Your task to perform on an android device: Go to Google Image 0: 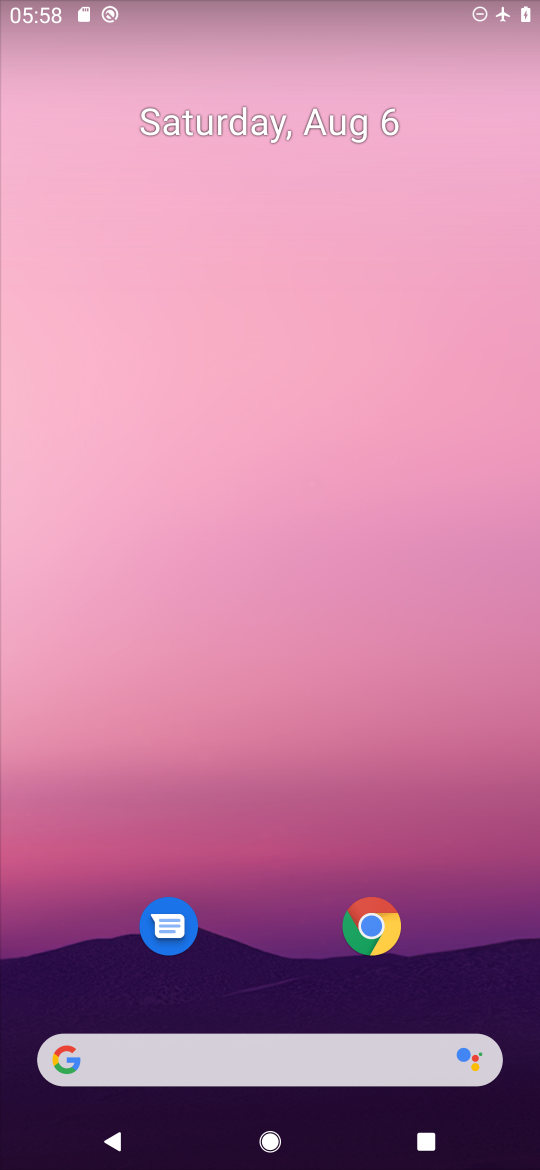
Step 0: drag from (266, 908) to (244, 187)
Your task to perform on an android device: Go to Google Image 1: 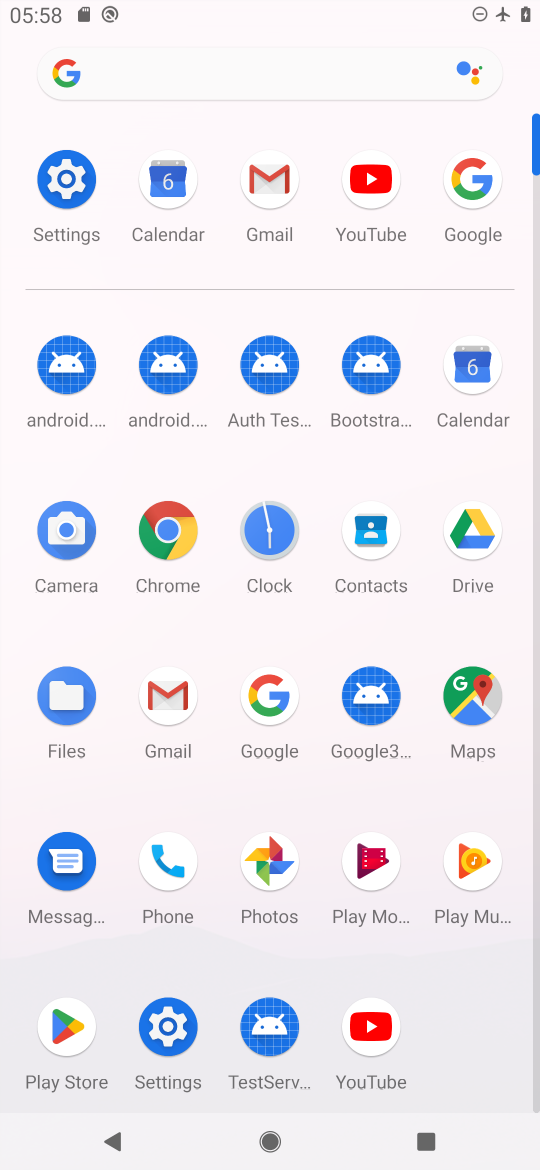
Step 1: click (262, 694)
Your task to perform on an android device: Go to Google Image 2: 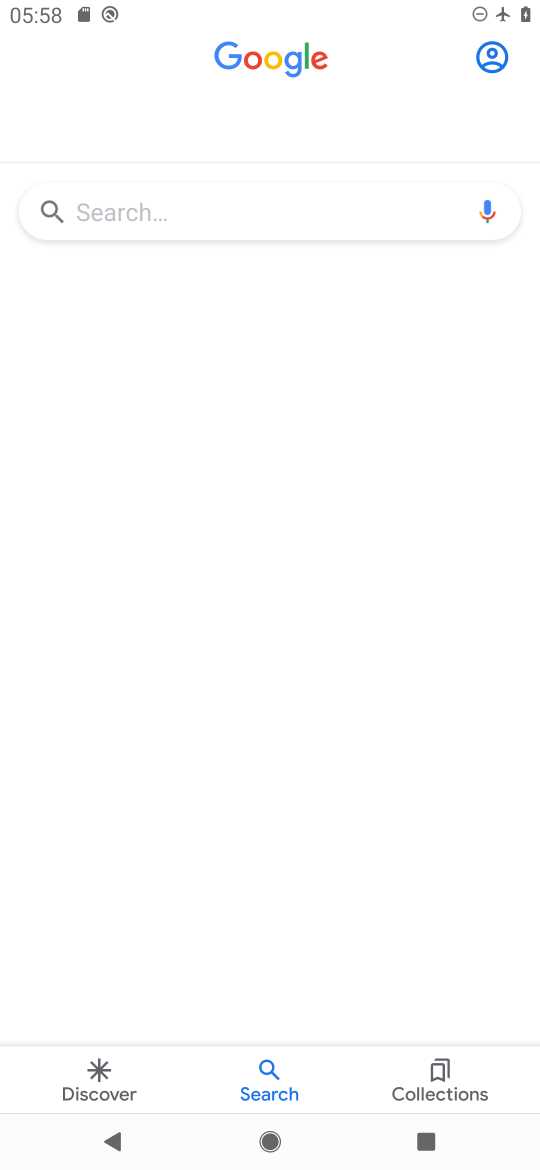
Step 2: task complete